Your task to perform on an android device: turn on sleep mode Image 0: 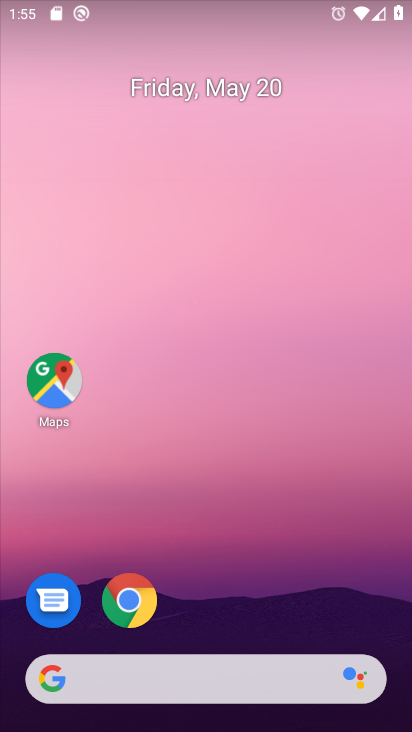
Step 0: drag from (253, 509) to (312, 167)
Your task to perform on an android device: turn on sleep mode Image 1: 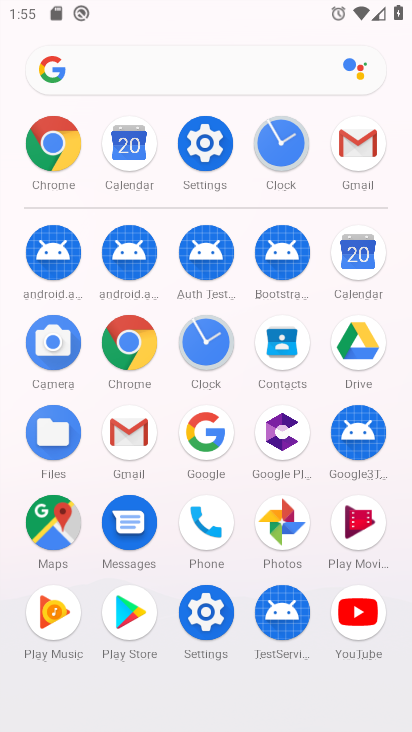
Step 1: click (214, 154)
Your task to perform on an android device: turn on sleep mode Image 2: 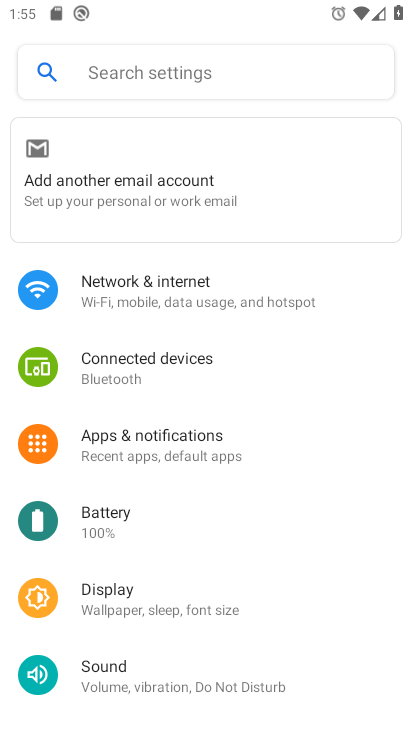
Step 2: click (205, 79)
Your task to perform on an android device: turn on sleep mode Image 3: 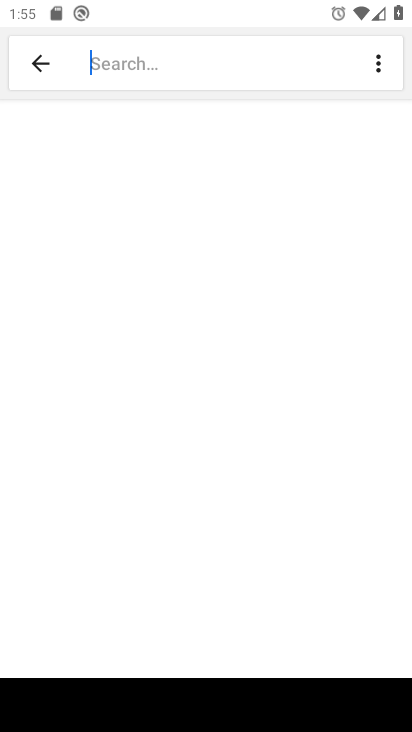
Step 3: type "sleep mode"
Your task to perform on an android device: turn on sleep mode Image 4: 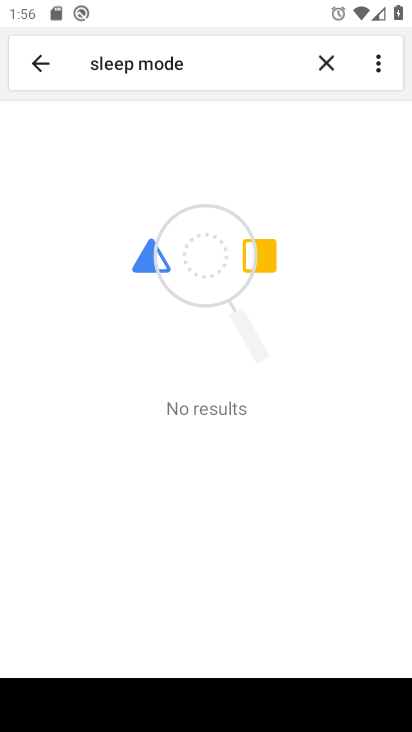
Step 4: task complete